Your task to perform on an android device: change the clock style Image 0: 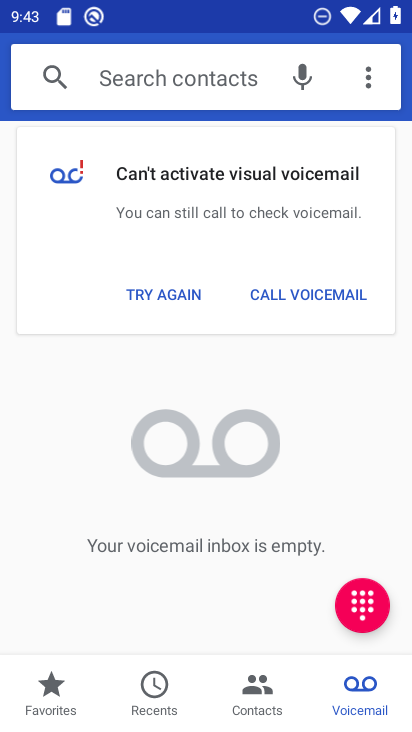
Step 0: press home button
Your task to perform on an android device: change the clock style Image 1: 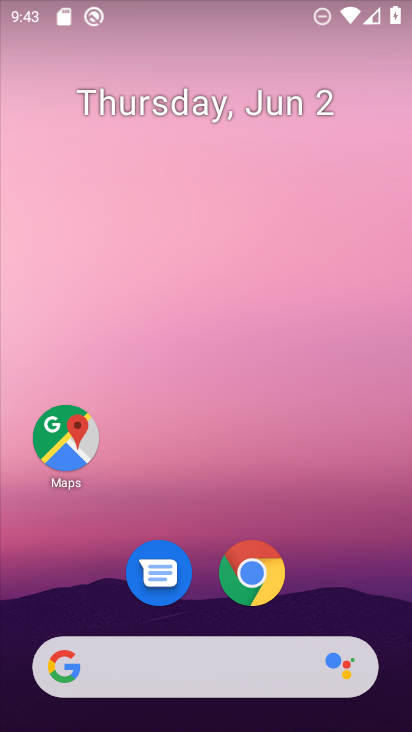
Step 1: drag from (318, 527) to (292, 119)
Your task to perform on an android device: change the clock style Image 2: 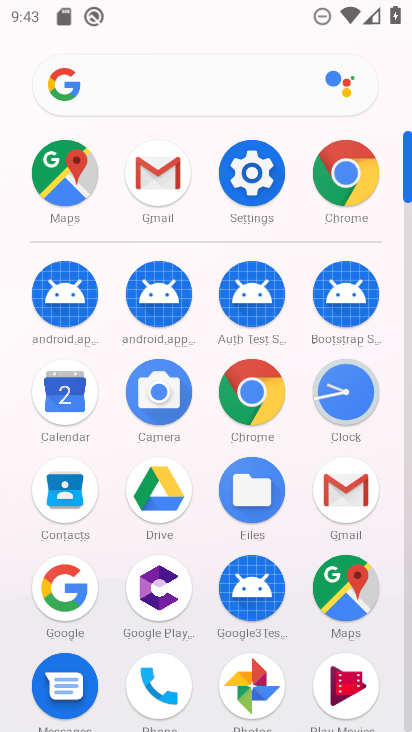
Step 2: click (344, 395)
Your task to perform on an android device: change the clock style Image 3: 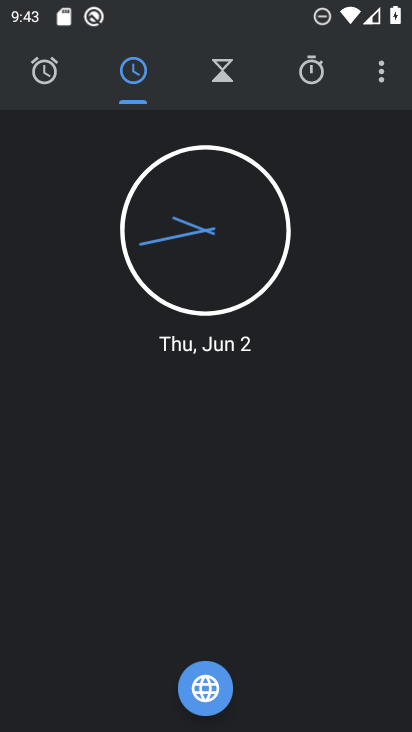
Step 3: click (384, 71)
Your task to perform on an android device: change the clock style Image 4: 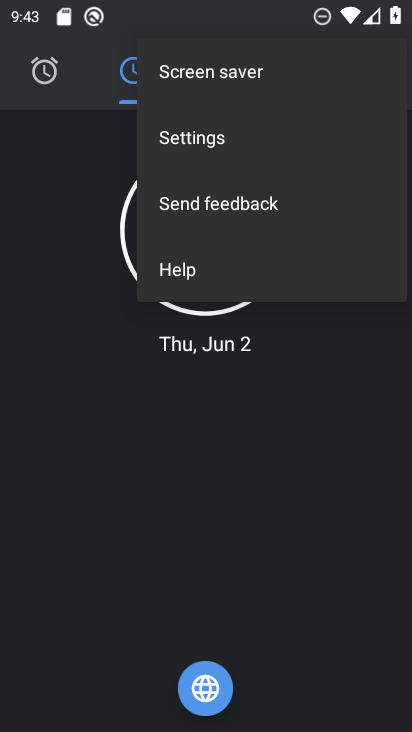
Step 4: click (222, 125)
Your task to perform on an android device: change the clock style Image 5: 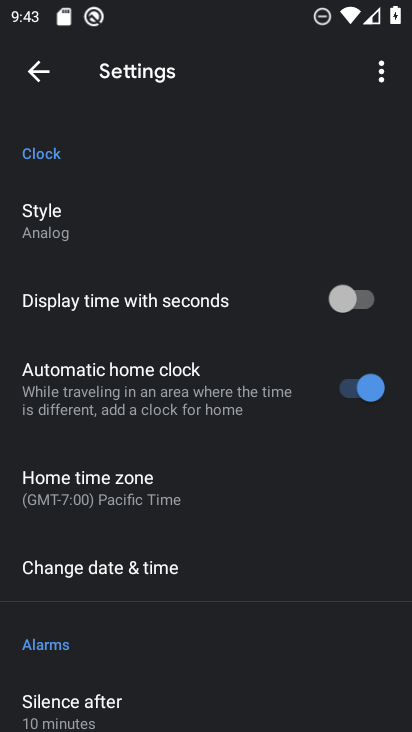
Step 5: click (61, 210)
Your task to perform on an android device: change the clock style Image 6: 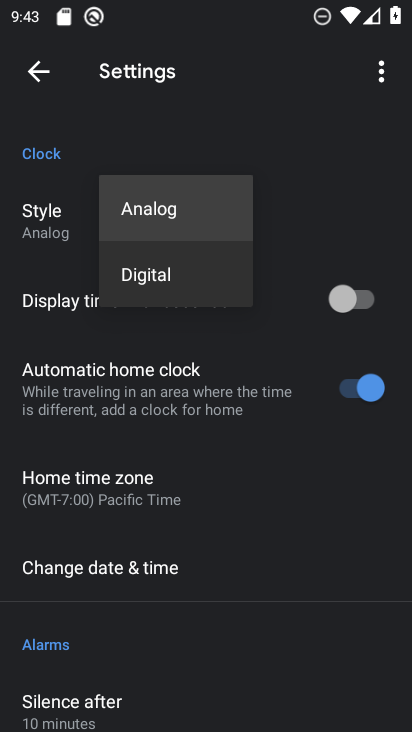
Step 6: click (139, 280)
Your task to perform on an android device: change the clock style Image 7: 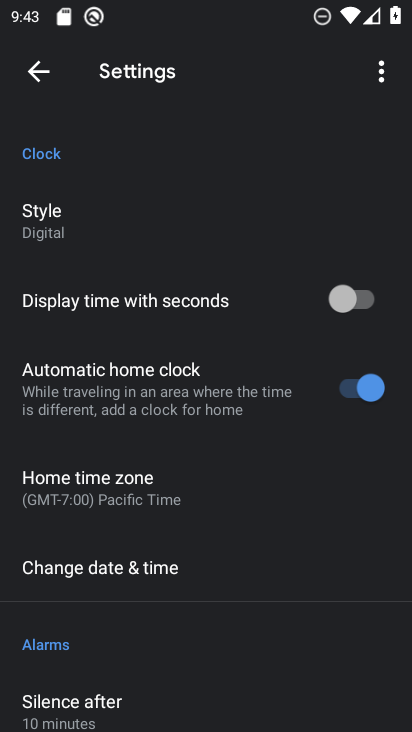
Step 7: task complete